Your task to perform on an android device: move a message to another label in the gmail app Image 0: 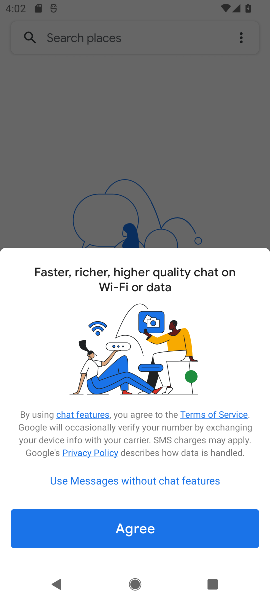
Step 0: press home button
Your task to perform on an android device: move a message to another label in the gmail app Image 1: 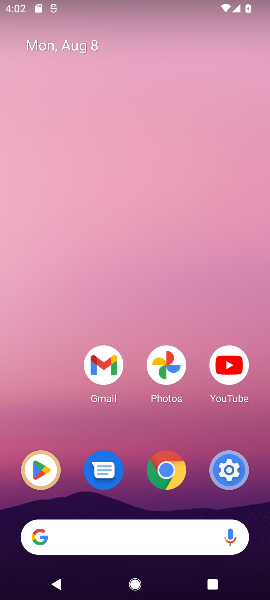
Step 1: drag from (52, 408) to (93, 79)
Your task to perform on an android device: move a message to another label in the gmail app Image 2: 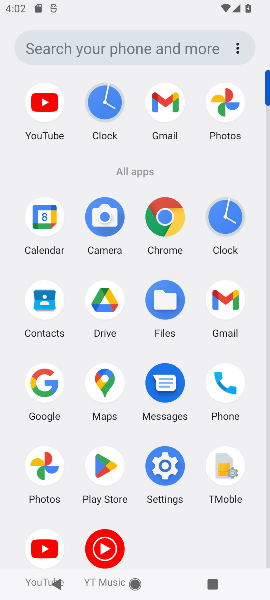
Step 2: click (227, 299)
Your task to perform on an android device: move a message to another label in the gmail app Image 3: 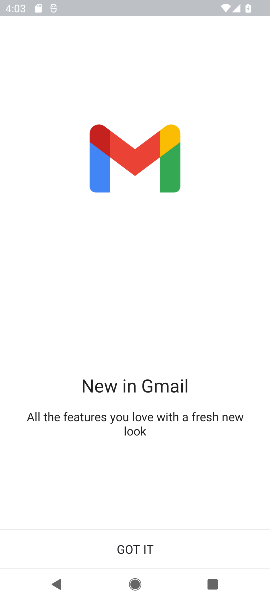
Step 3: click (151, 552)
Your task to perform on an android device: move a message to another label in the gmail app Image 4: 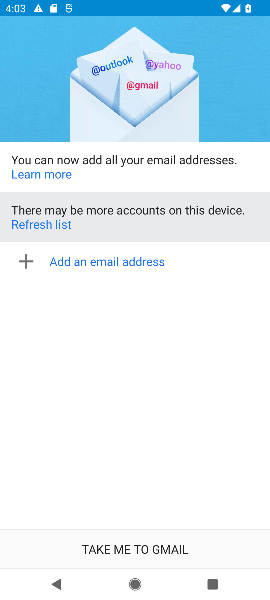
Step 4: click (150, 548)
Your task to perform on an android device: move a message to another label in the gmail app Image 5: 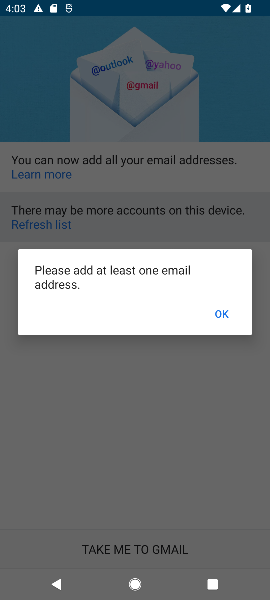
Step 5: task complete